Your task to perform on an android device: Go to Google maps Image 0: 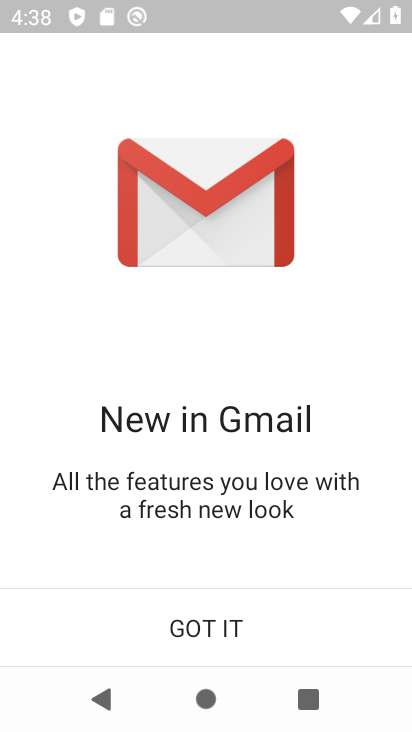
Step 0: press home button
Your task to perform on an android device: Go to Google maps Image 1: 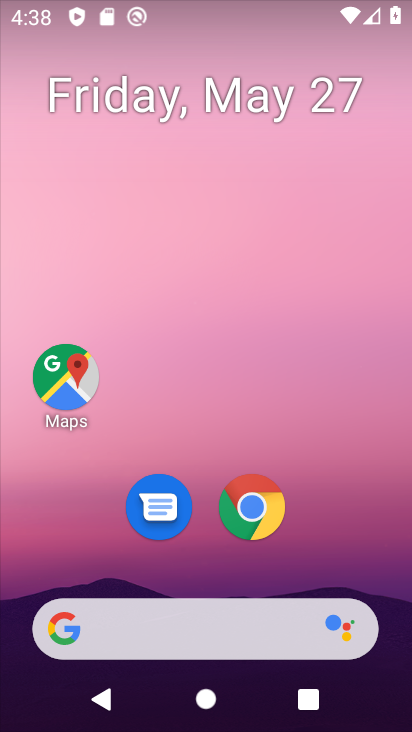
Step 1: click (59, 375)
Your task to perform on an android device: Go to Google maps Image 2: 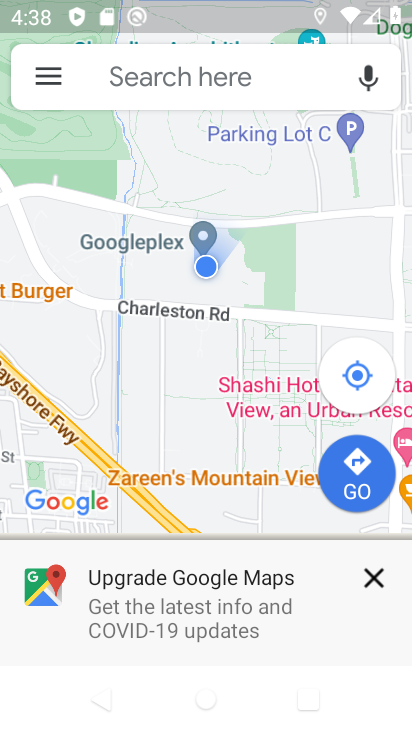
Step 2: task complete